Your task to perform on an android device: turn on wifi Image 0: 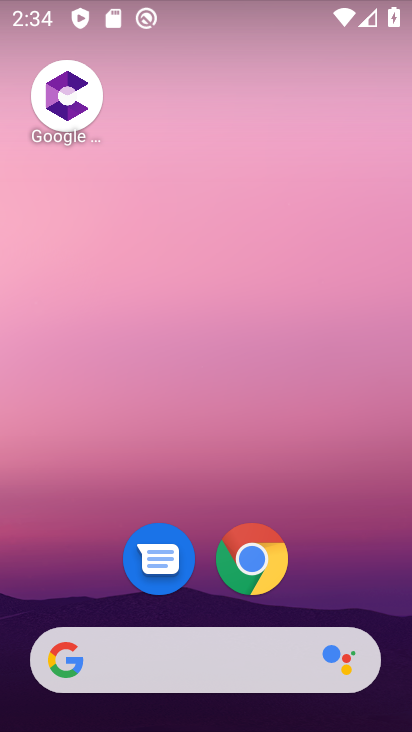
Step 0: drag from (223, 727) to (234, 106)
Your task to perform on an android device: turn on wifi Image 1: 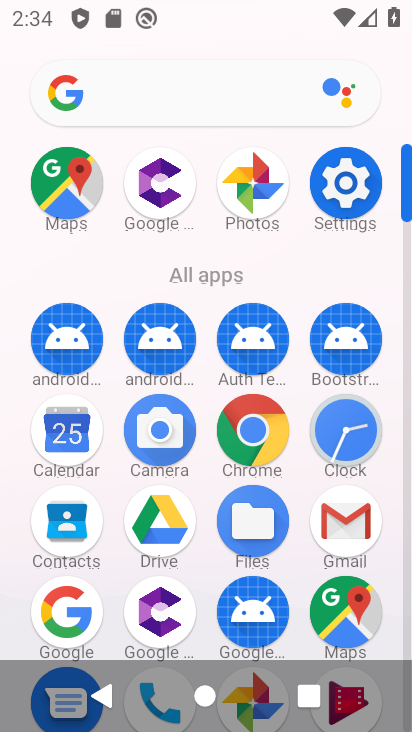
Step 1: click (355, 185)
Your task to perform on an android device: turn on wifi Image 2: 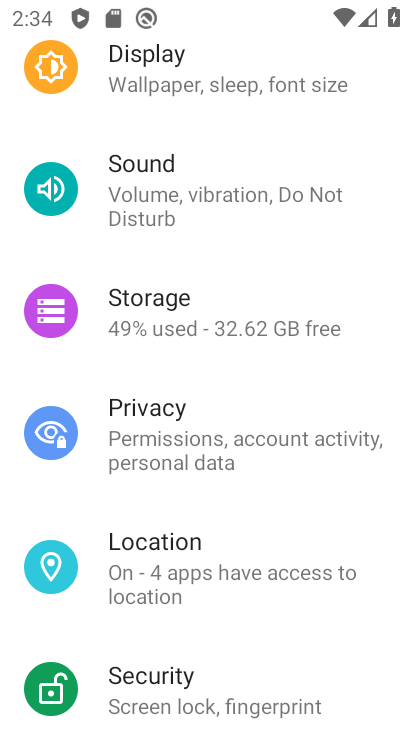
Step 2: drag from (304, 139) to (325, 561)
Your task to perform on an android device: turn on wifi Image 3: 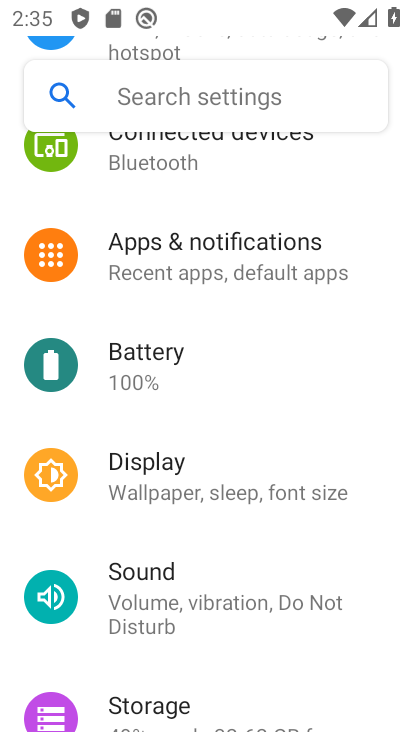
Step 3: drag from (256, 209) to (276, 647)
Your task to perform on an android device: turn on wifi Image 4: 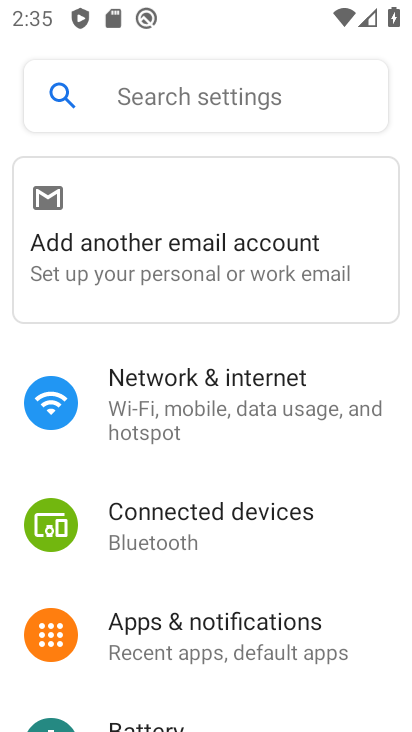
Step 4: click (175, 406)
Your task to perform on an android device: turn on wifi Image 5: 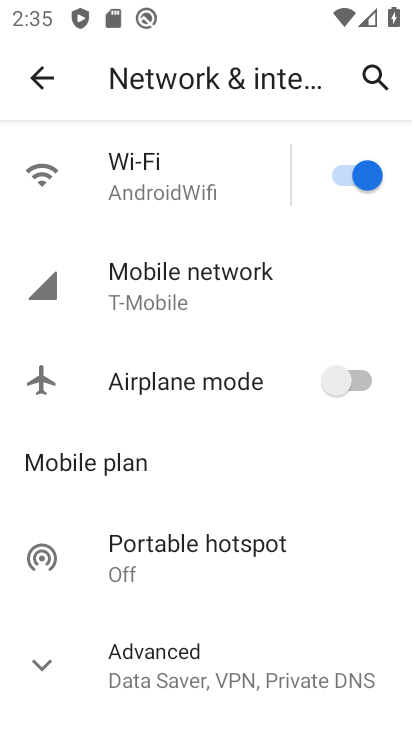
Step 5: task complete